Your task to perform on an android device: Search for seafood restaurants on Google Maps Image 0: 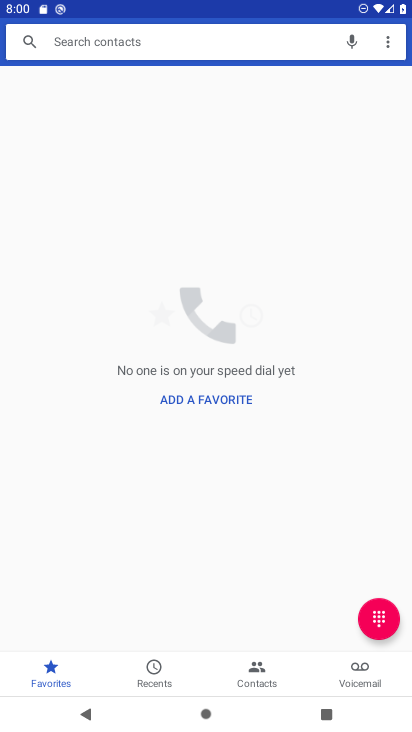
Step 0: press home button
Your task to perform on an android device: Search for seafood restaurants on Google Maps Image 1: 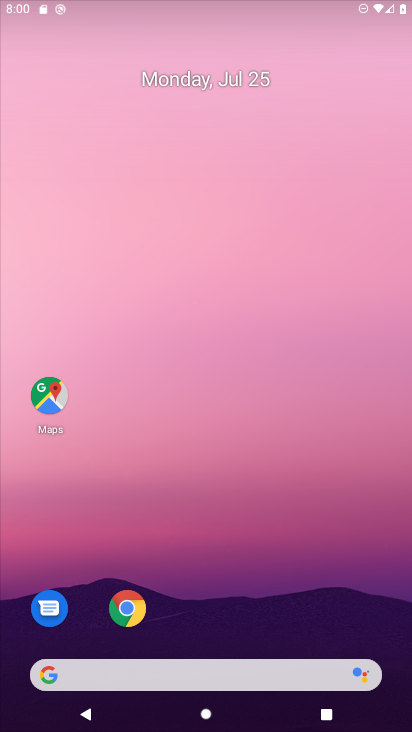
Step 1: drag from (236, 394) to (247, 122)
Your task to perform on an android device: Search for seafood restaurants on Google Maps Image 2: 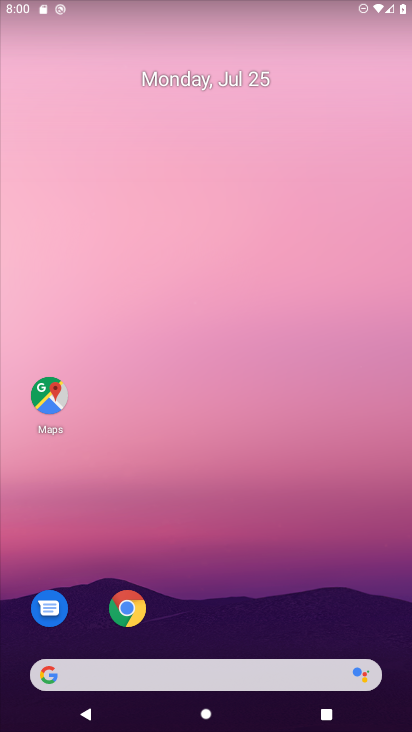
Step 2: drag from (299, 636) to (301, 257)
Your task to perform on an android device: Search for seafood restaurants on Google Maps Image 3: 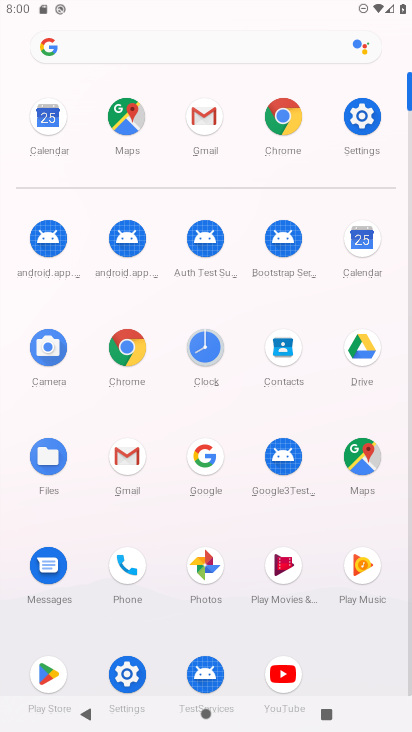
Step 3: click (127, 117)
Your task to perform on an android device: Search for seafood restaurants on Google Maps Image 4: 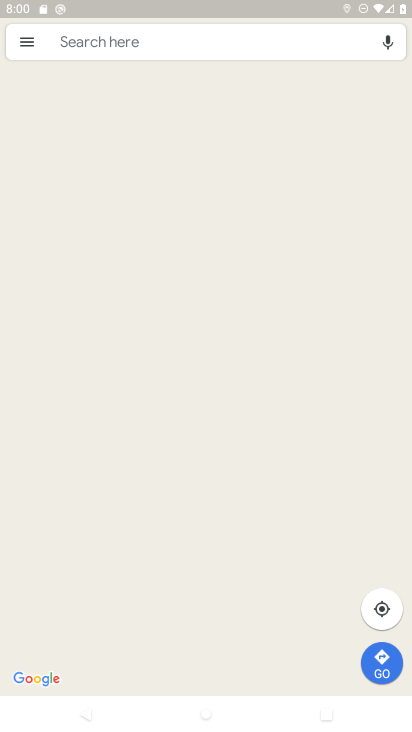
Step 4: click (85, 45)
Your task to perform on an android device: Search for seafood restaurants on Google Maps Image 5: 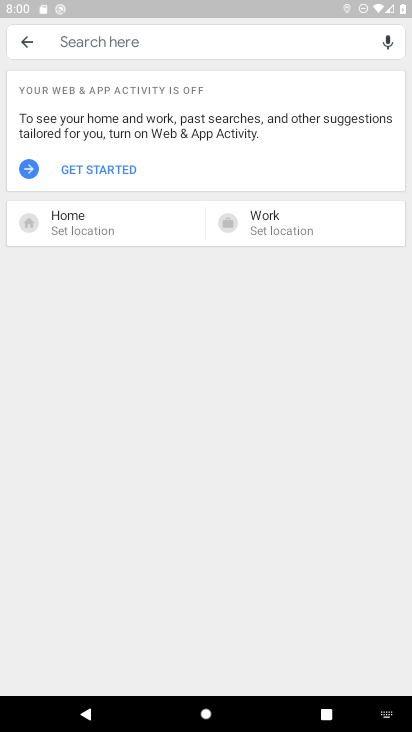
Step 5: type "seafood restaurants"
Your task to perform on an android device: Search for seafood restaurants on Google Maps Image 6: 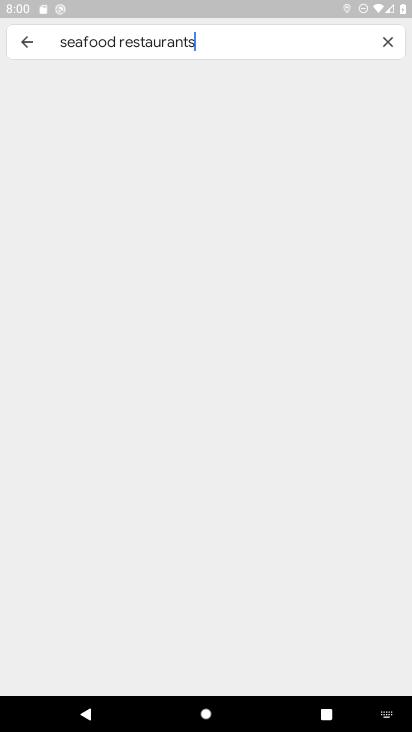
Step 6: press enter
Your task to perform on an android device: Search for seafood restaurants on Google Maps Image 7: 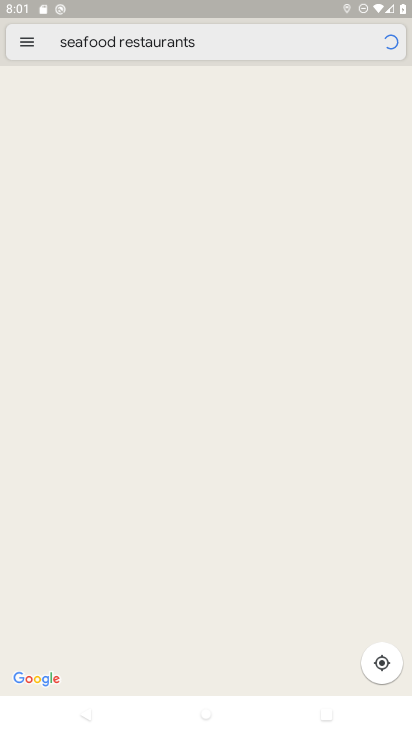
Step 7: task complete